Your task to perform on an android device: check the backup settings in the google photos Image 0: 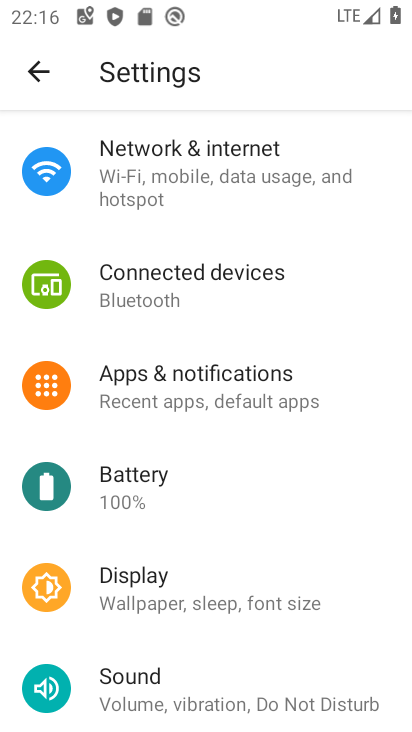
Step 0: press home button
Your task to perform on an android device: check the backup settings in the google photos Image 1: 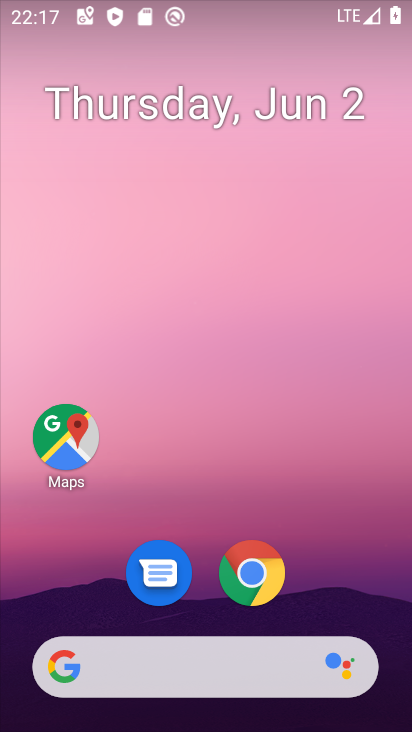
Step 1: drag from (333, 569) to (280, 50)
Your task to perform on an android device: check the backup settings in the google photos Image 2: 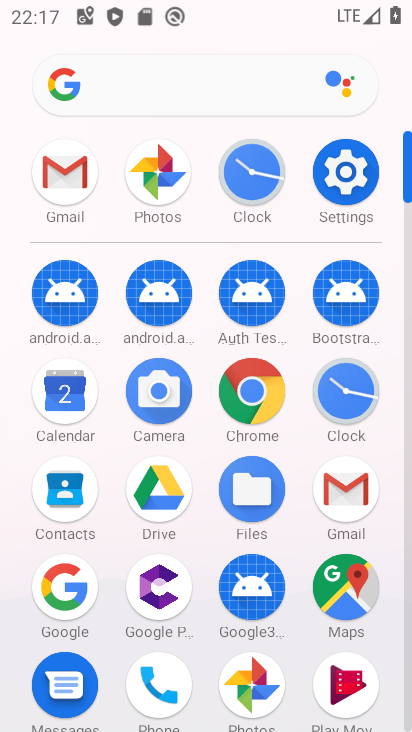
Step 2: click (156, 185)
Your task to perform on an android device: check the backup settings in the google photos Image 3: 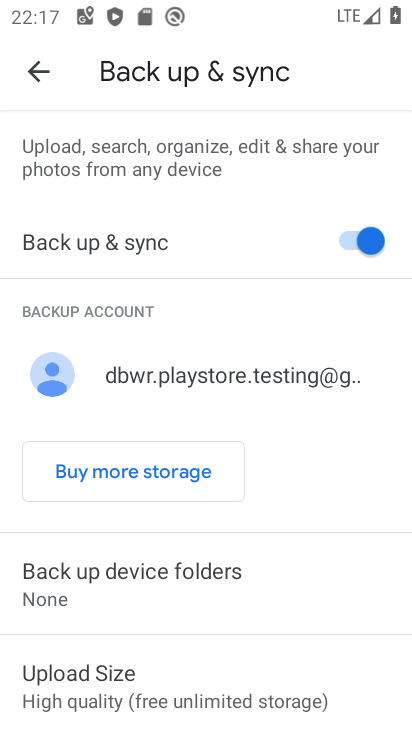
Step 3: task complete